Your task to perform on an android device: toggle notifications settings in the gmail app Image 0: 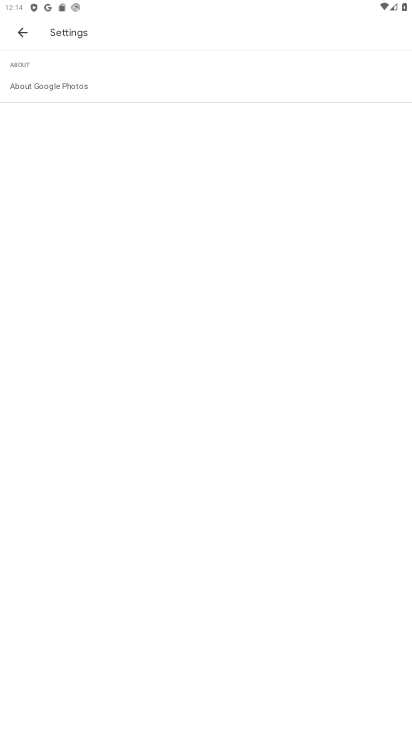
Step 0: press home button
Your task to perform on an android device: toggle notifications settings in the gmail app Image 1: 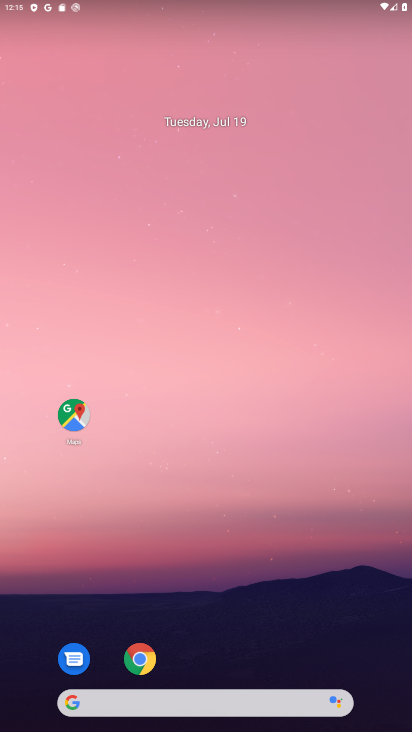
Step 1: drag from (186, 698) to (187, 29)
Your task to perform on an android device: toggle notifications settings in the gmail app Image 2: 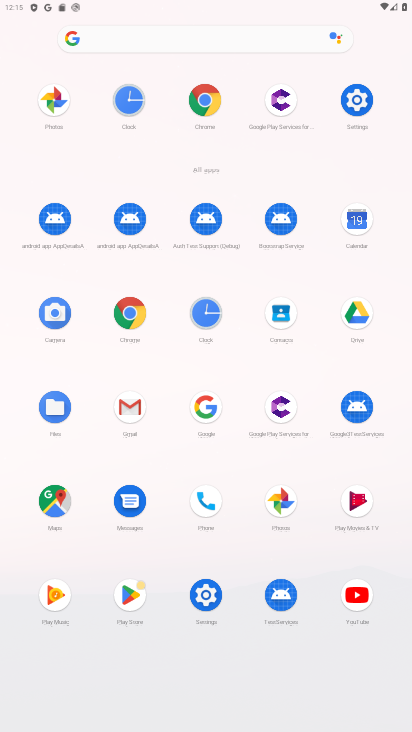
Step 2: click (130, 408)
Your task to perform on an android device: toggle notifications settings in the gmail app Image 3: 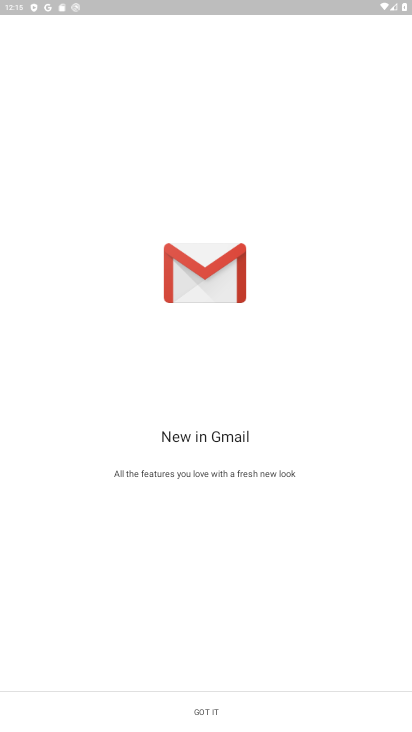
Step 3: click (203, 710)
Your task to perform on an android device: toggle notifications settings in the gmail app Image 4: 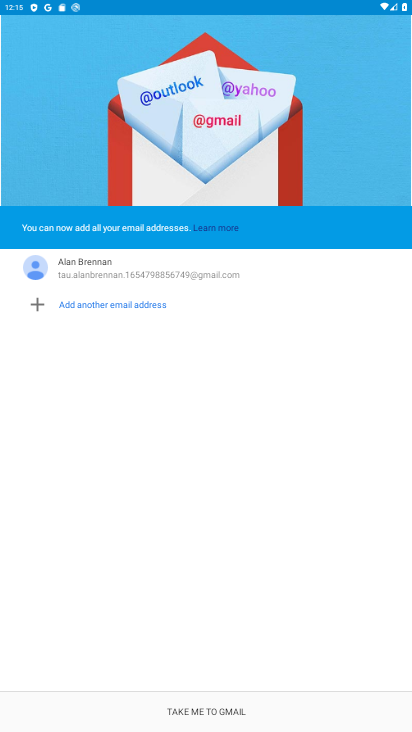
Step 4: click (200, 712)
Your task to perform on an android device: toggle notifications settings in the gmail app Image 5: 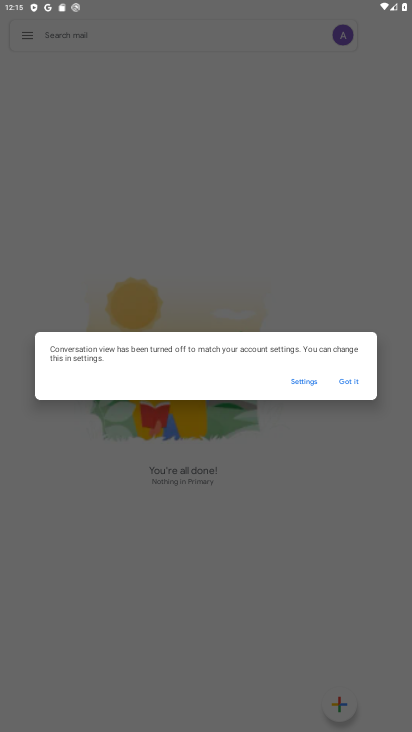
Step 5: click (347, 379)
Your task to perform on an android device: toggle notifications settings in the gmail app Image 6: 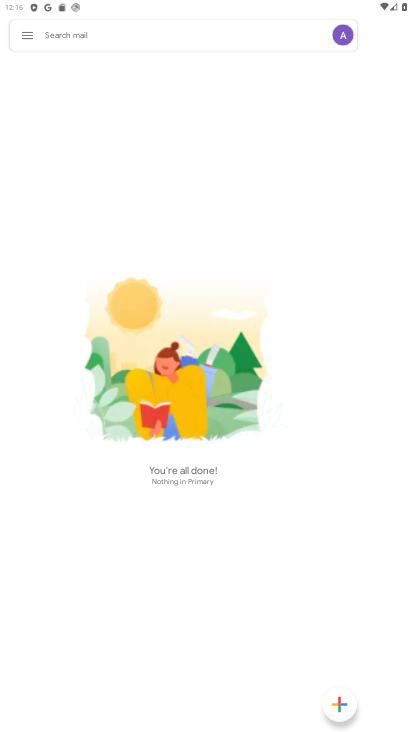
Step 6: click (26, 34)
Your task to perform on an android device: toggle notifications settings in the gmail app Image 7: 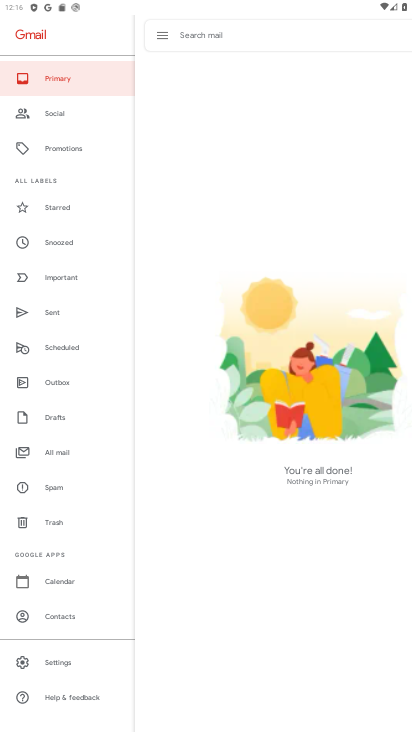
Step 7: click (57, 666)
Your task to perform on an android device: toggle notifications settings in the gmail app Image 8: 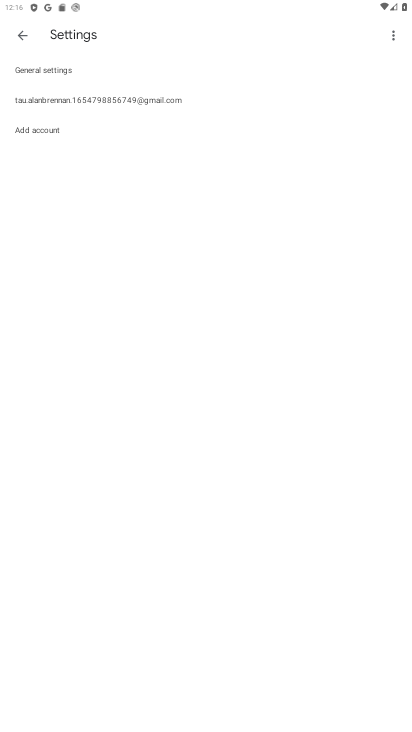
Step 8: click (87, 99)
Your task to perform on an android device: toggle notifications settings in the gmail app Image 9: 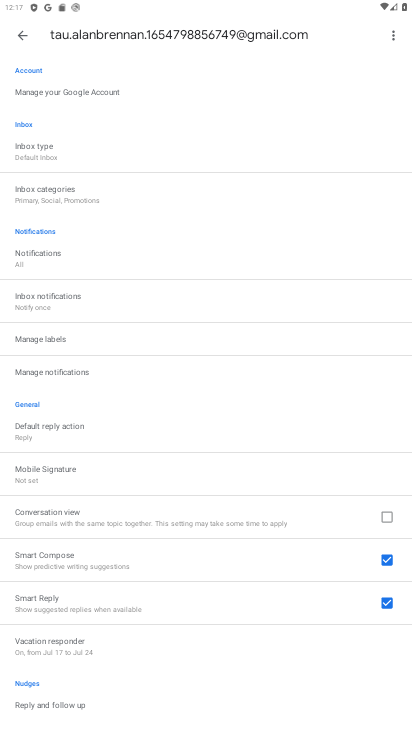
Step 9: click (50, 370)
Your task to perform on an android device: toggle notifications settings in the gmail app Image 10: 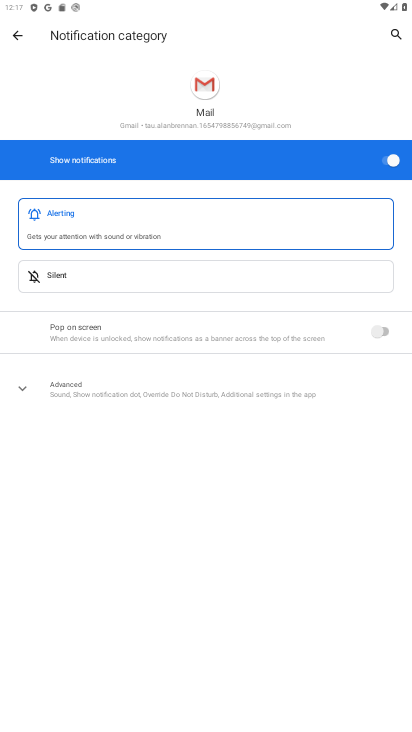
Step 10: click (384, 162)
Your task to perform on an android device: toggle notifications settings in the gmail app Image 11: 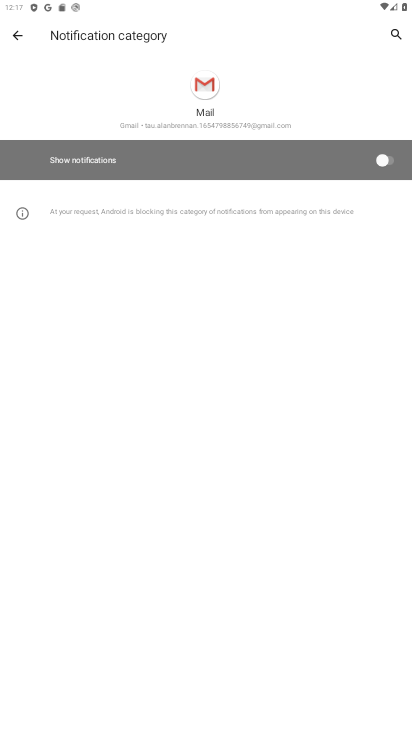
Step 11: task complete